Your task to perform on an android device: open chrome privacy settings Image 0: 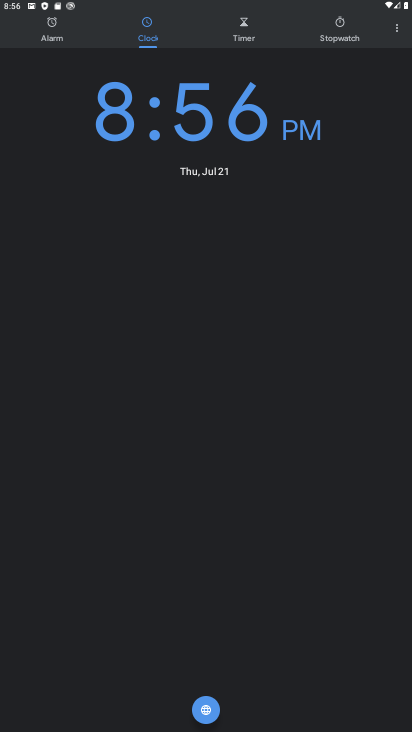
Step 0: drag from (205, 557) to (320, 48)
Your task to perform on an android device: open chrome privacy settings Image 1: 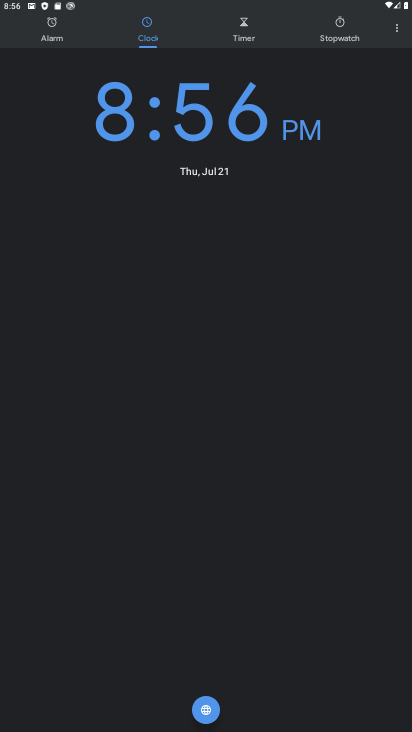
Step 1: press home button
Your task to perform on an android device: open chrome privacy settings Image 2: 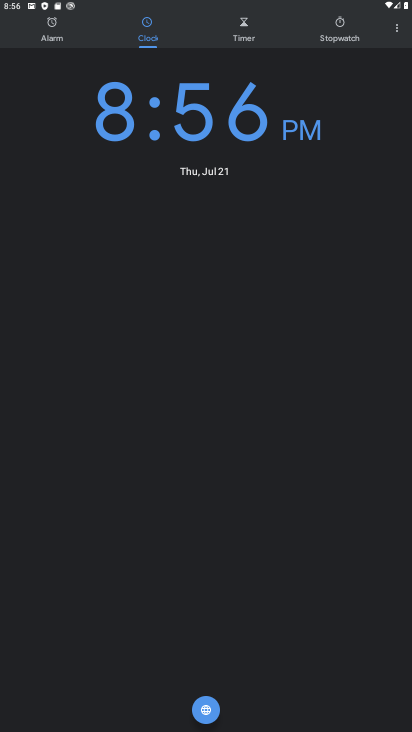
Step 2: drag from (369, 112) to (384, 50)
Your task to perform on an android device: open chrome privacy settings Image 3: 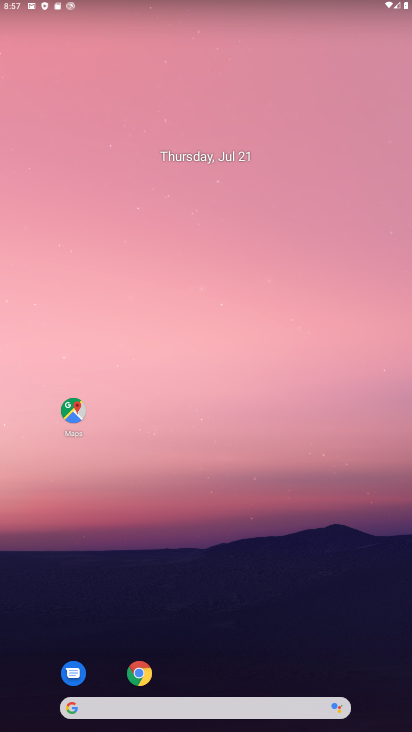
Step 3: drag from (188, 667) to (319, 155)
Your task to perform on an android device: open chrome privacy settings Image 4: 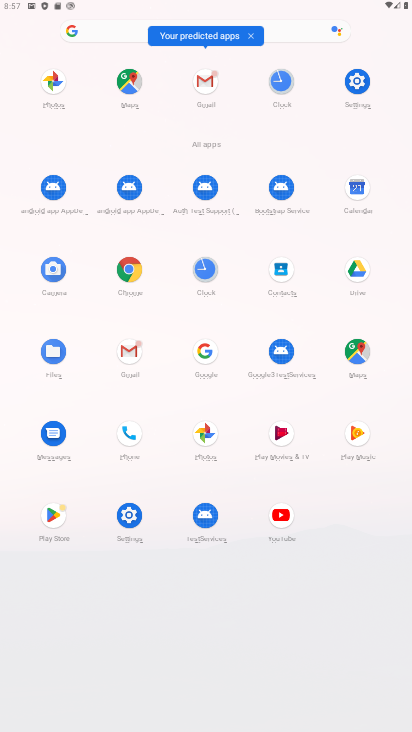
Step 4: click (115, 269)
Your task to perform on an android device: open chrome privacy settings Image 5: 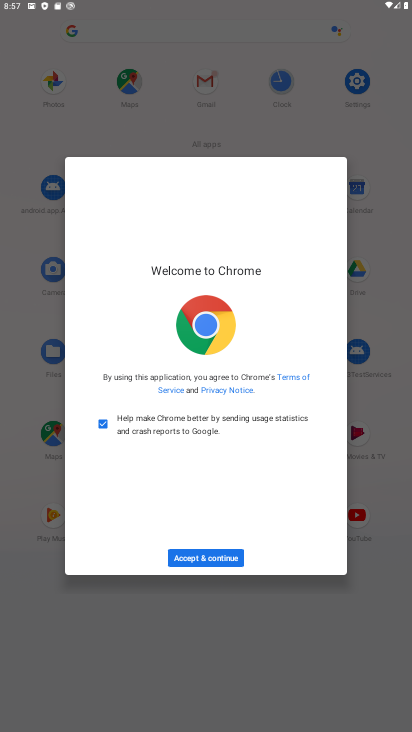
Step 5: click (211, 551)
Your task to perform on an android device: open chrome privacy settings Image 6: 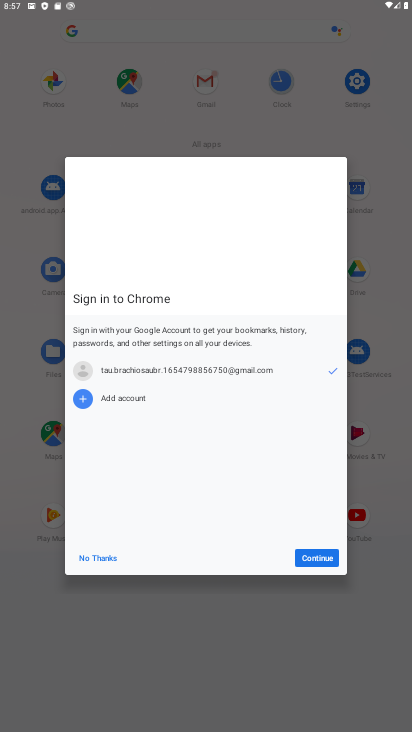
Step 6: click (314, 556)
Your task to perform on an android device: open chrome privacy settings Image 7: 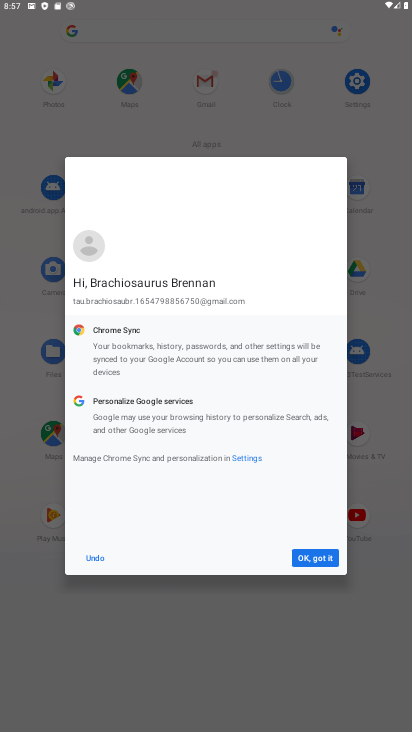
Step 7: click (314, 556)
Your task to perform on an android device: open chrome privacy settings Image 8: 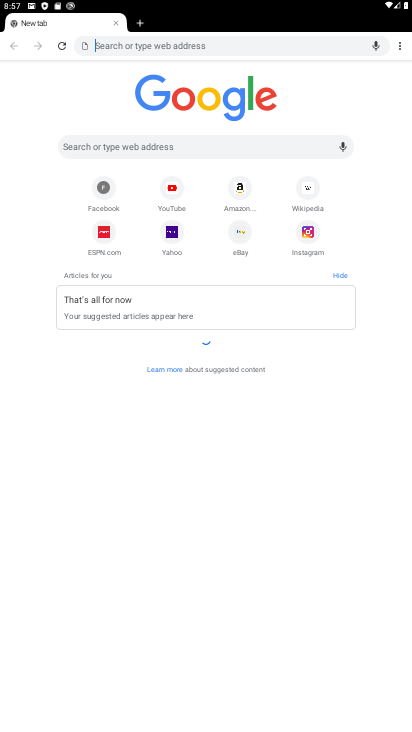
Step 8: drag from (398, 49) to (310, 212)
Your task to perform on an android device: open chrome privacy settings Image 9: 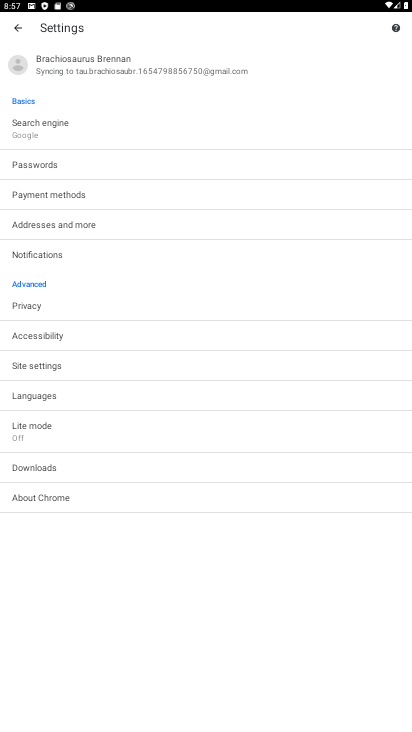
Step 9: click (28, 305)
Your task to perform on an android device: open chrome privacy settings Image 10: 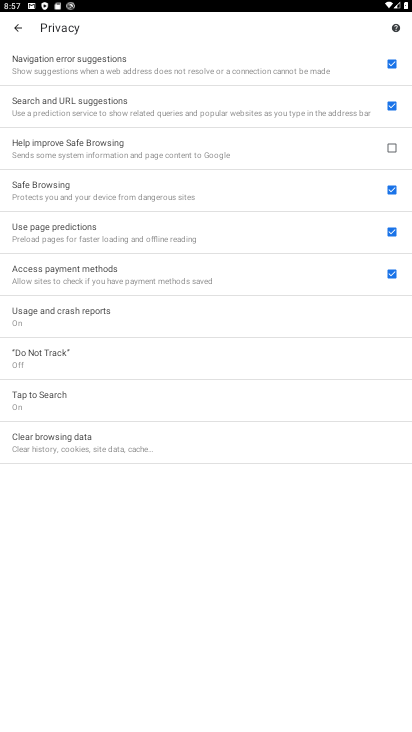
Step 10: task complete